Your task to perform on an android device: Add "usb-c" to the cart on amazon.com Image 0: 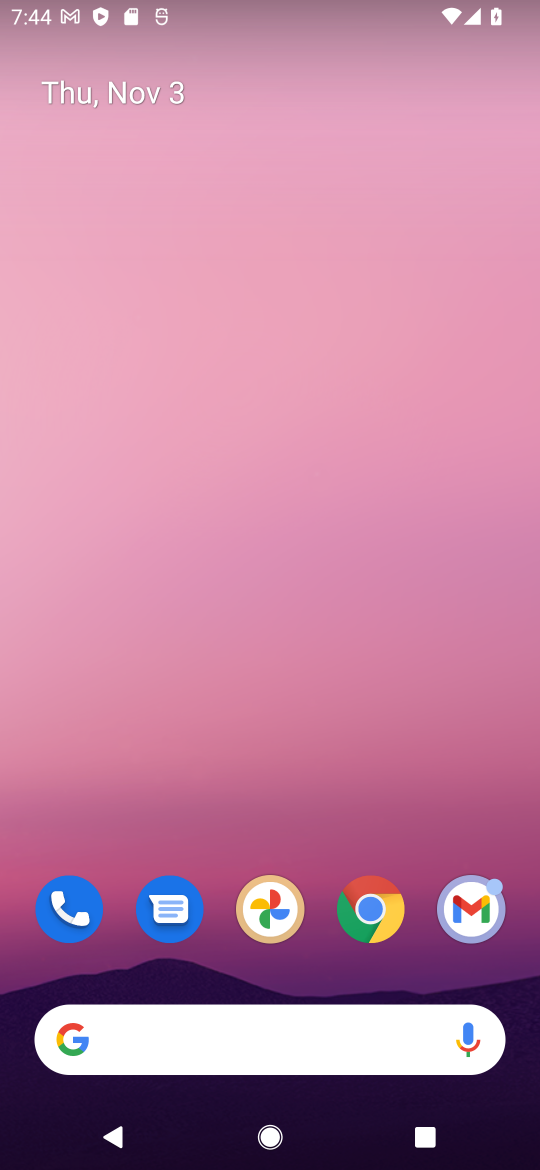
Step 0: drag from (259, 1000) to (310, 231)
Your task to perform on an android device: Add "usb-c" to the cart on amazon.com Image 1: 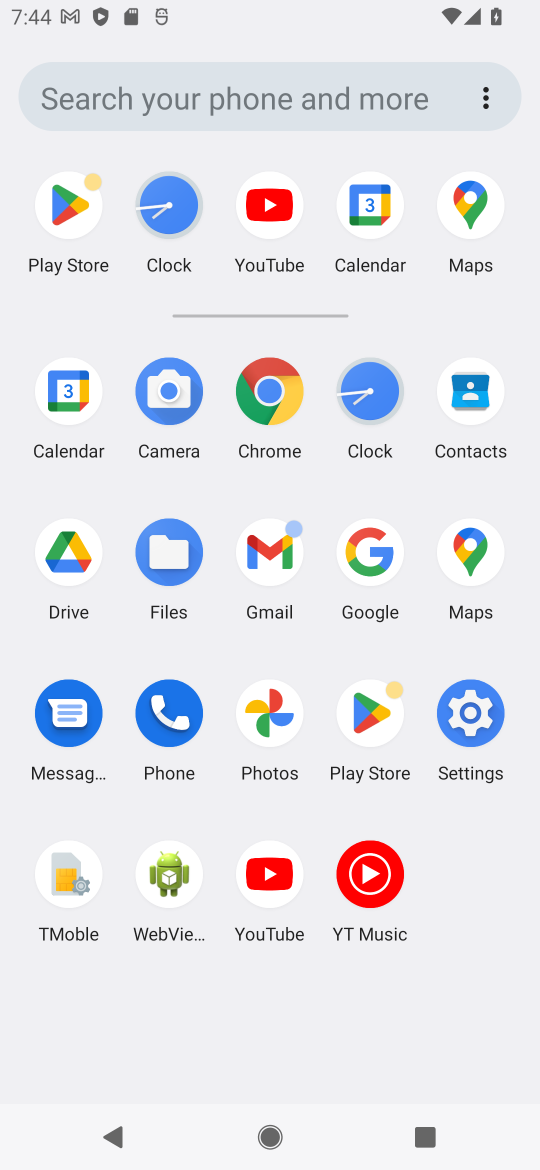
Step 1: click (351, 551)
Your task to perform on an android device: Add "usb-c" to the cart on amazon.com Image 2: 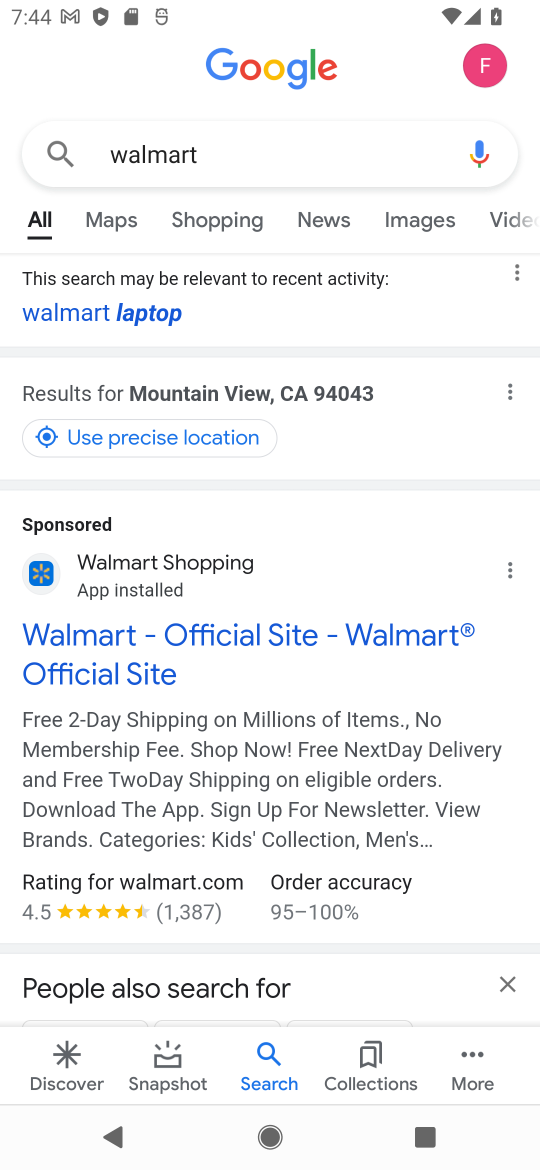
Step 2: click (182, 141)
Your task to perform on an android device: Add "usb-c" to the cart on amazon.com Image 3: 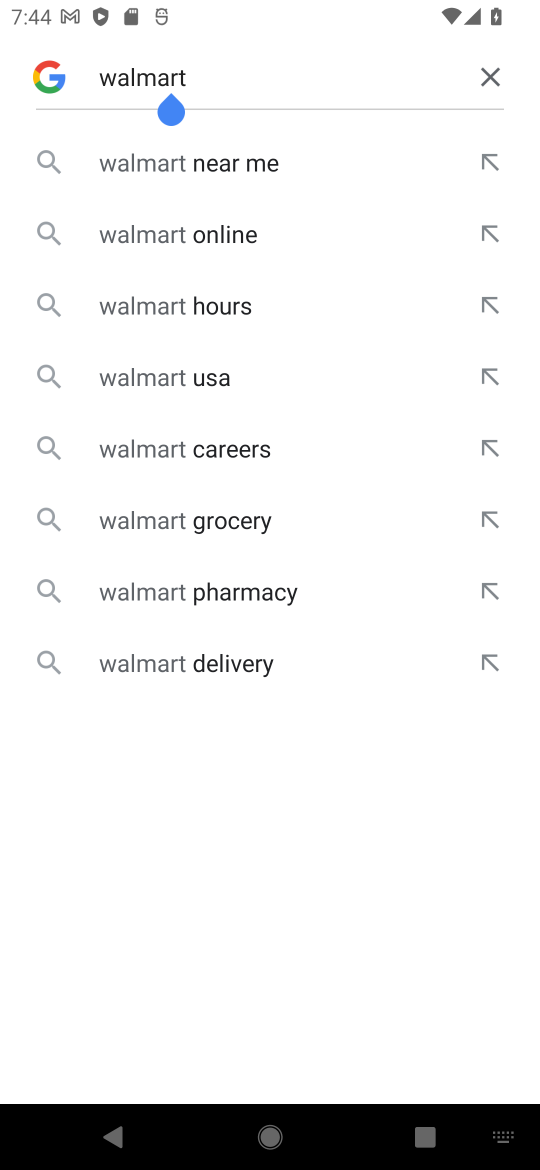
Step 3: click (480, 68)
Your task to perform on an android device: Add "usb-c" to the cart on amazon.com Image 4: 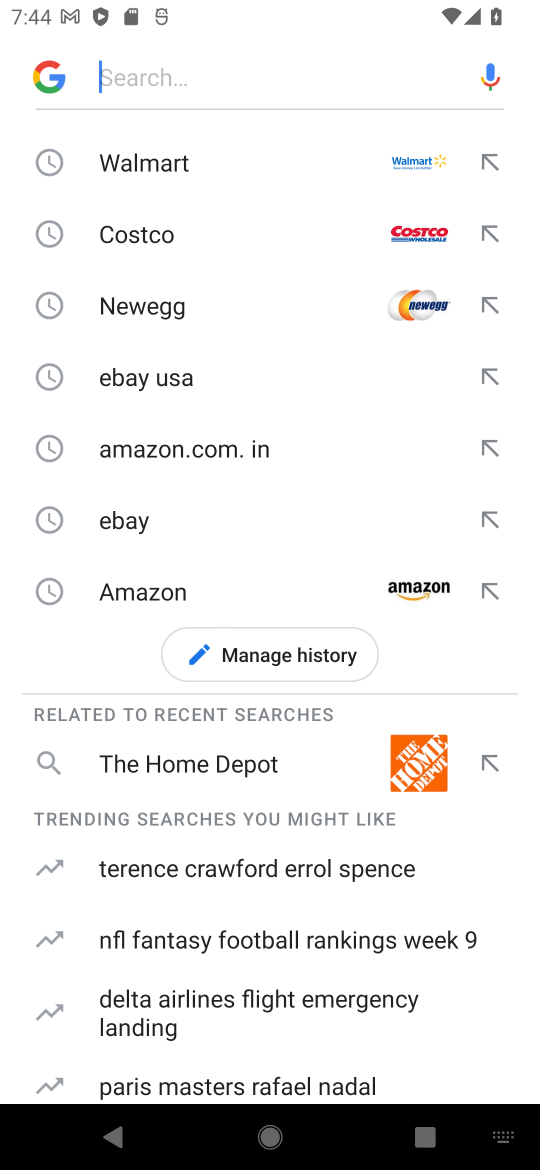
Step 4: click (210, 69)
Your task to perform on an android device: Add "usb-c" to the cart on amazon.com Image 5: 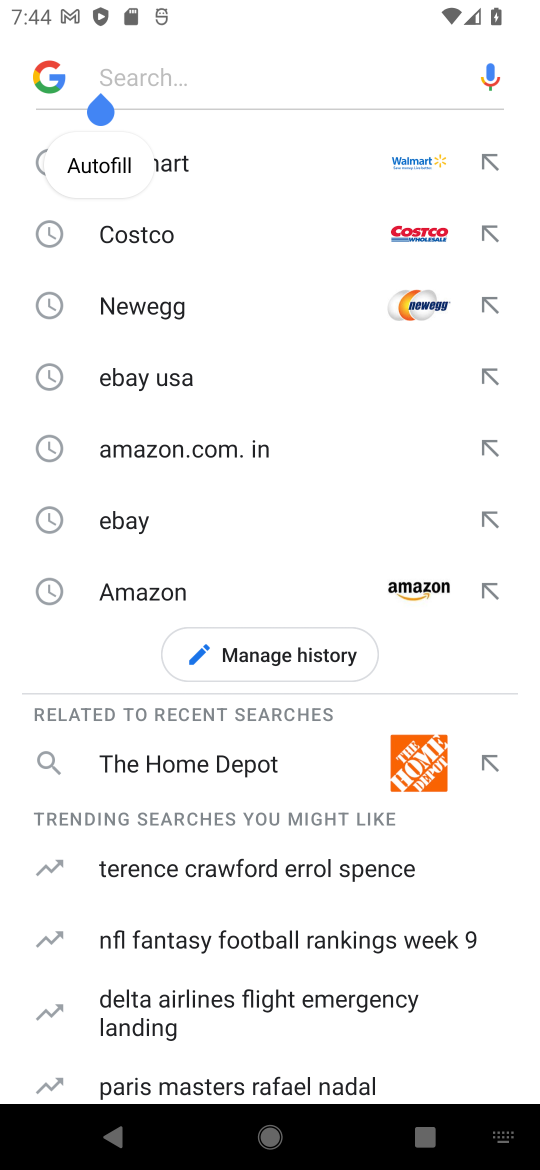
Step 5: type "amazon "
Your task to perform on an android device: Add "usb-c" to the cart on amazon.com Image 6: 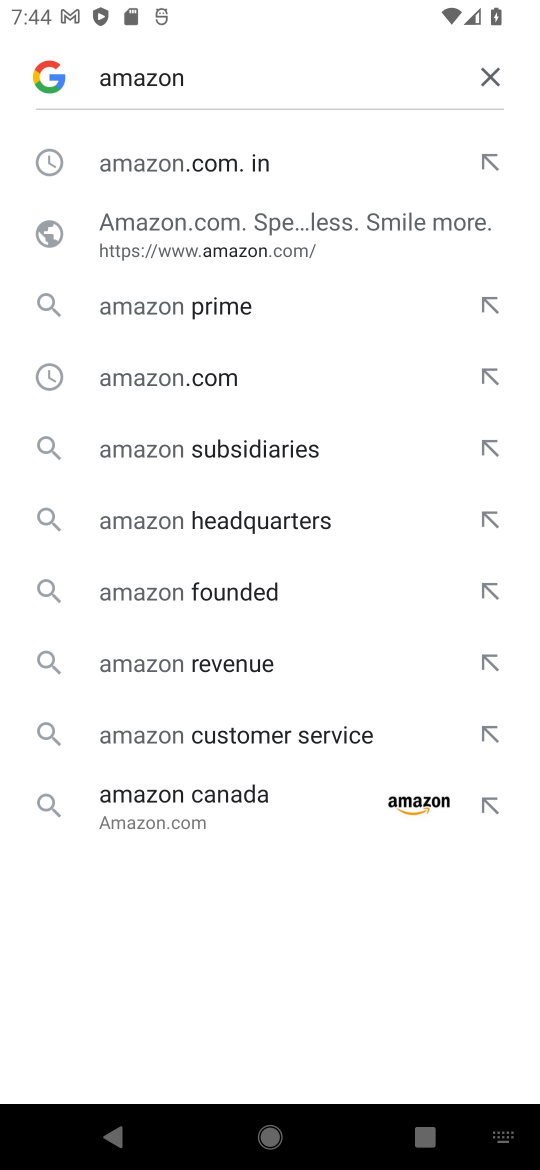
Step 6: click (212, 161)
Your task to perform on an android device: Add "usb-c" to the cart on amazon.com Image 7: 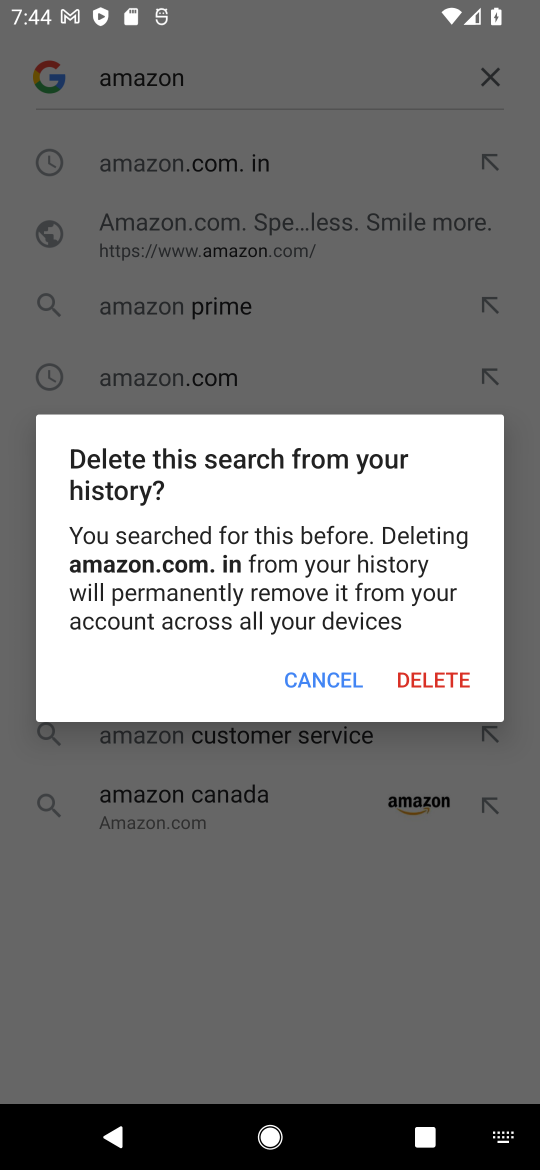
Step 7: click (332, 653)
Your task to perform on an android device: Add "usb-c" to the cart on amazon.com Image 8: 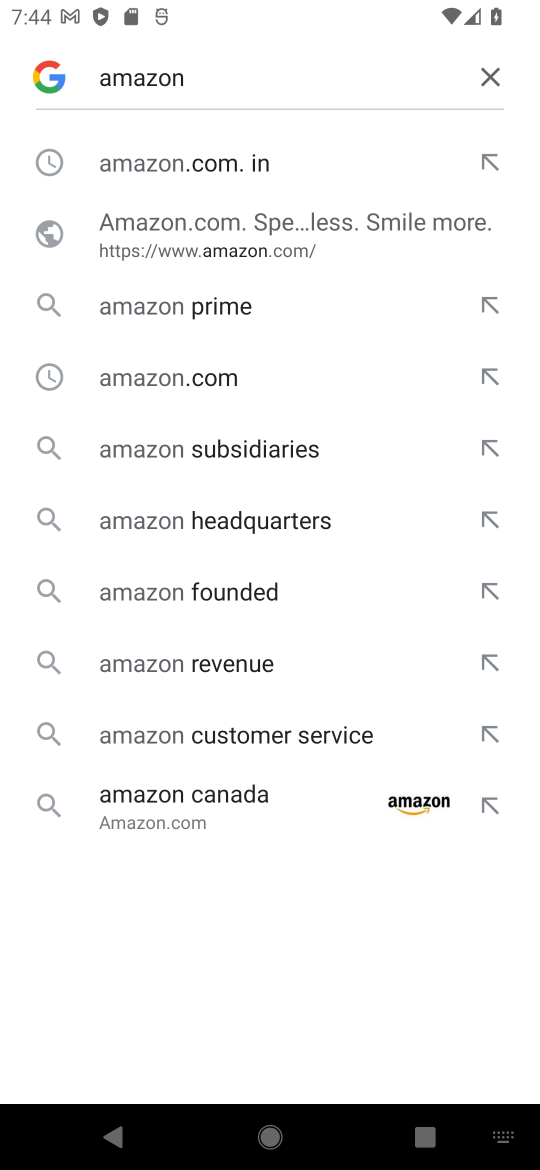
Step 8: click (171, 384)
Your task to perform on an android device: Add "usb-c" to the cart on amazon.com Image 9: 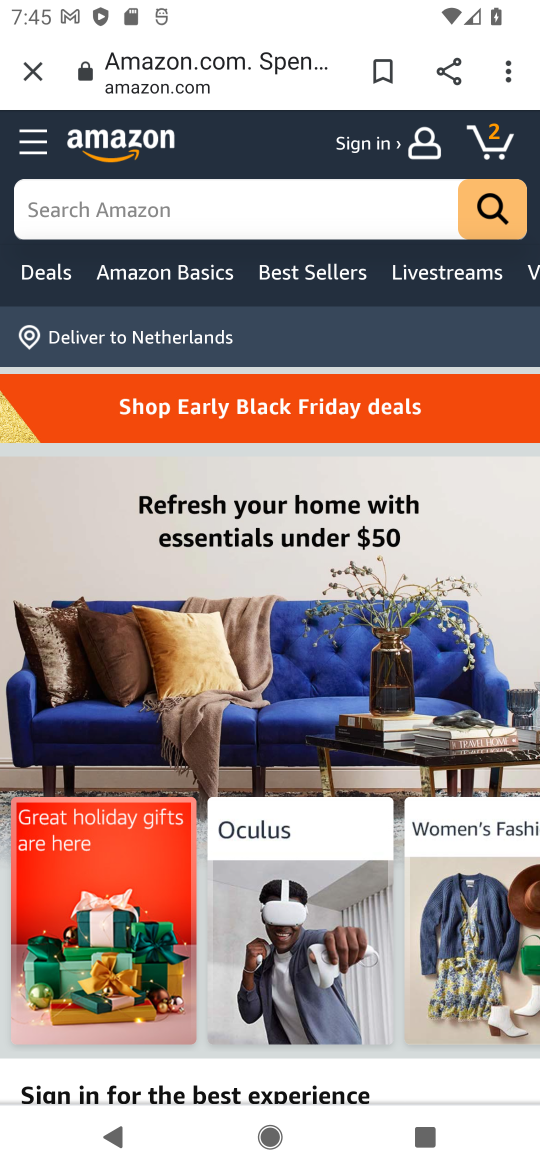
Step 9: click (347, 196)
Your task to perform on an android device: Add "usb-c" to the cart on amazon.com Image 10: 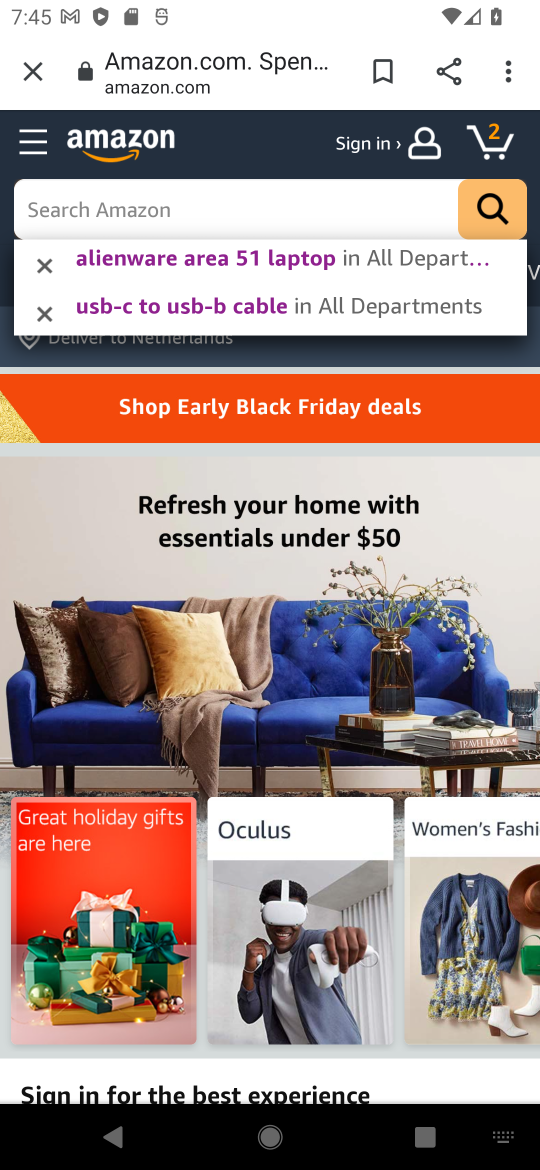
Step 10: type "usb-c "
Your task to perform on an android device: Add "usb-c" to the cart on amazon.com Image 11: 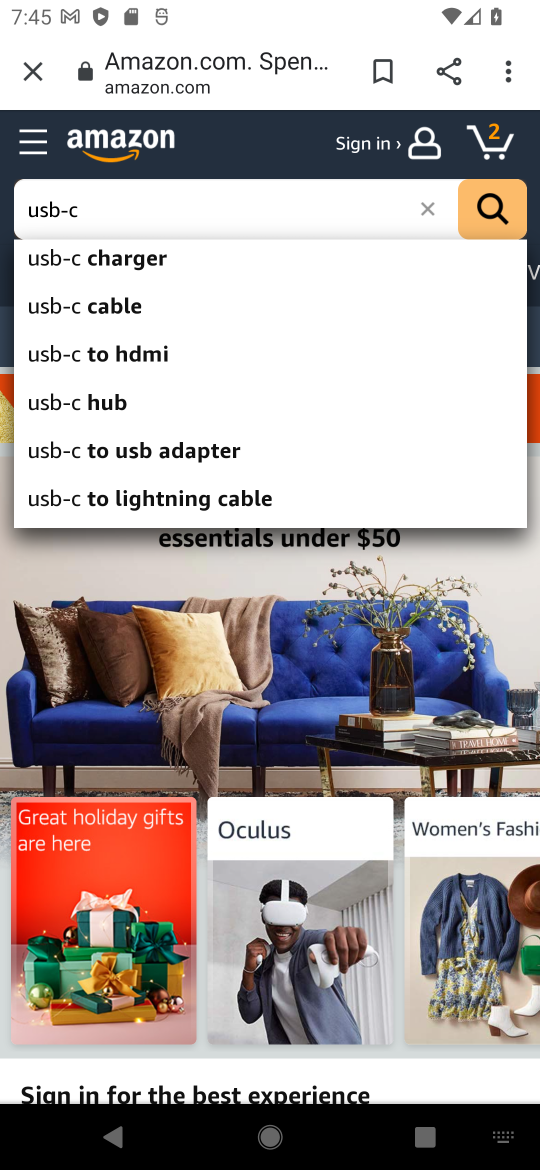
Step 11: click (71, 302)
Your task to perform on an android device: Add "usb-c" to the cart on amazon.com Image 12: 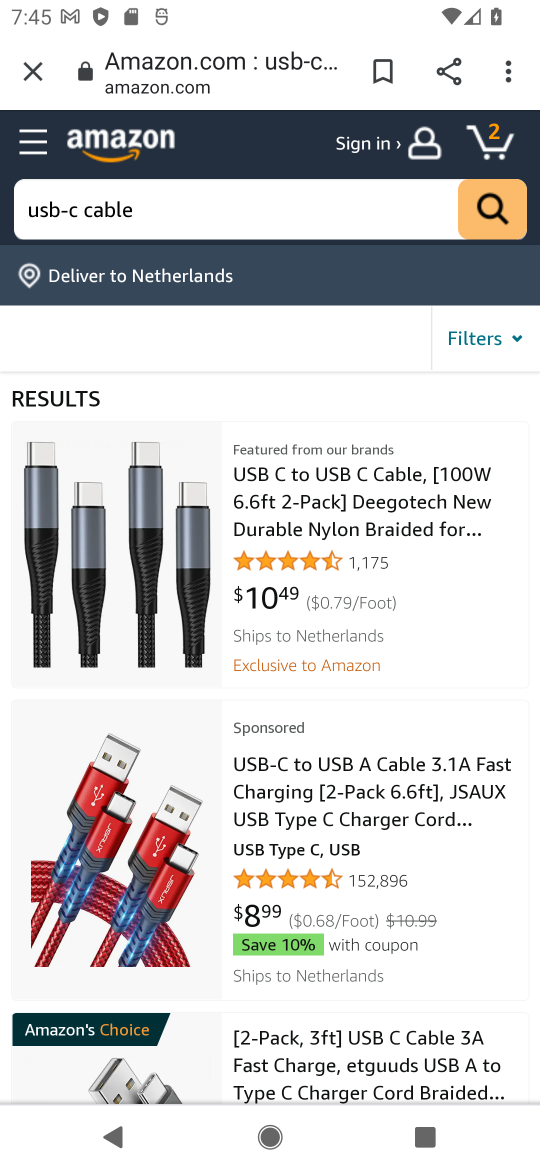
Step 12: click (342, 495)
Your task to perform on an android device: Add "usb-c" to the cart on amazon.com Image 13: 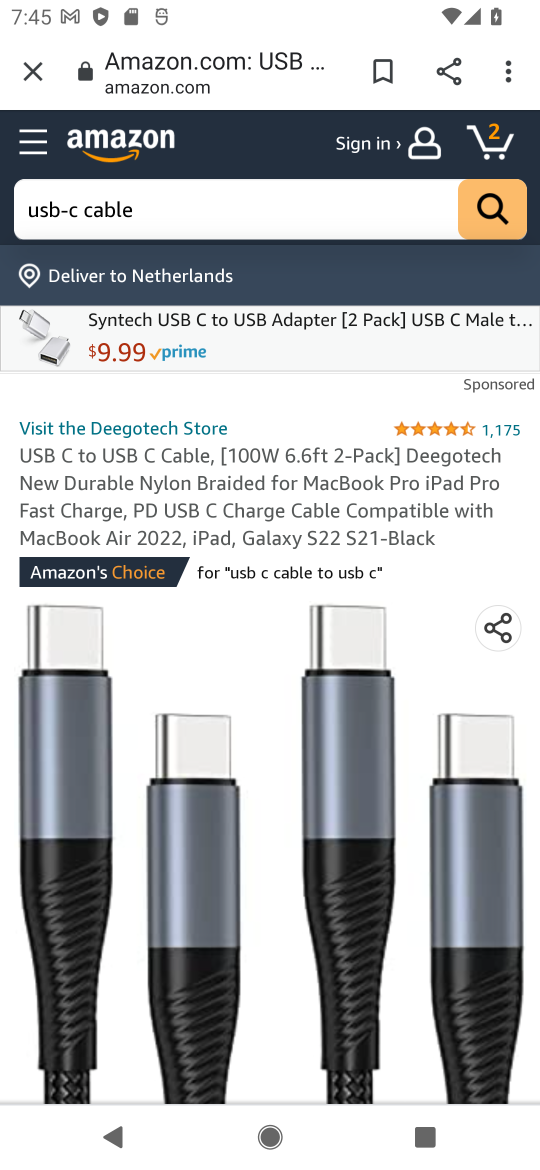
Step 13: drag from (99, 929) to (234, 421)
Your task to perform on an android device: Add "usb-c" to the cart on amazon.com Image 14: 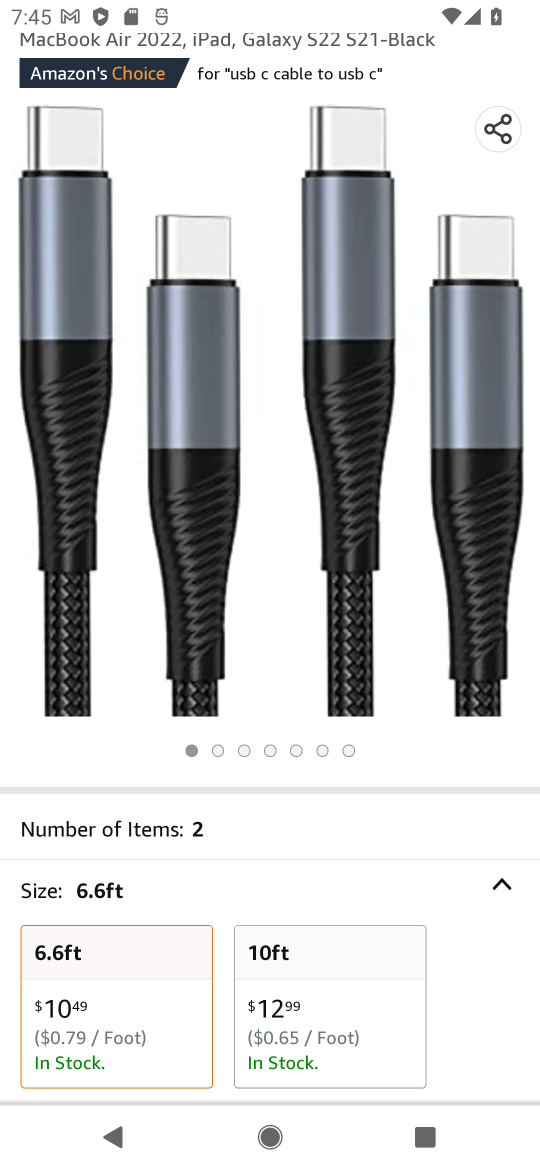
Step 14: drag from (292, 947) to (348, 199)
Your task to perform on an android device: Add "usb-c" to the cart on amazon.com Image 15: 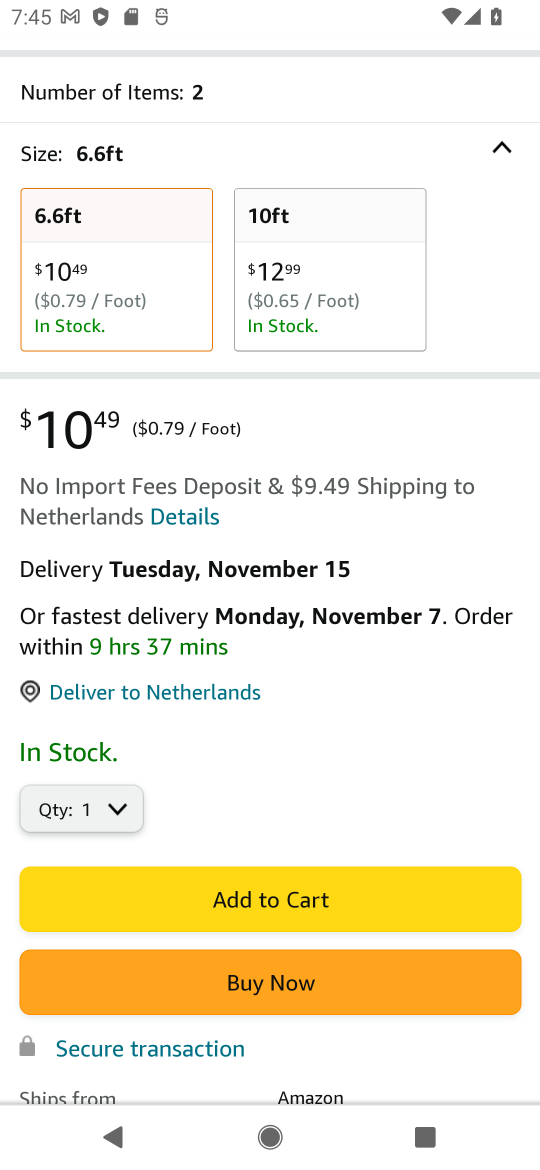
Step 15: click (284, 894)
Your task to perform on an android device: Add "usb-c" to the cart on amazon.com Image 16: 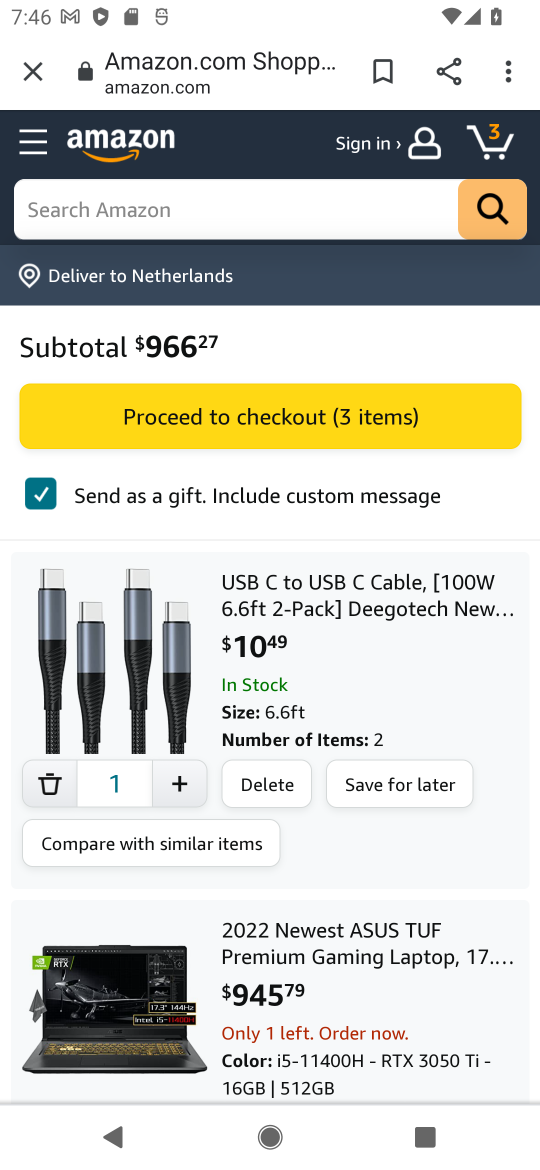
Step 16: task complete